Your task to perform on an android device: open app "TextNow: Call + Text Unlimited" (install if not already installed) Image 0: 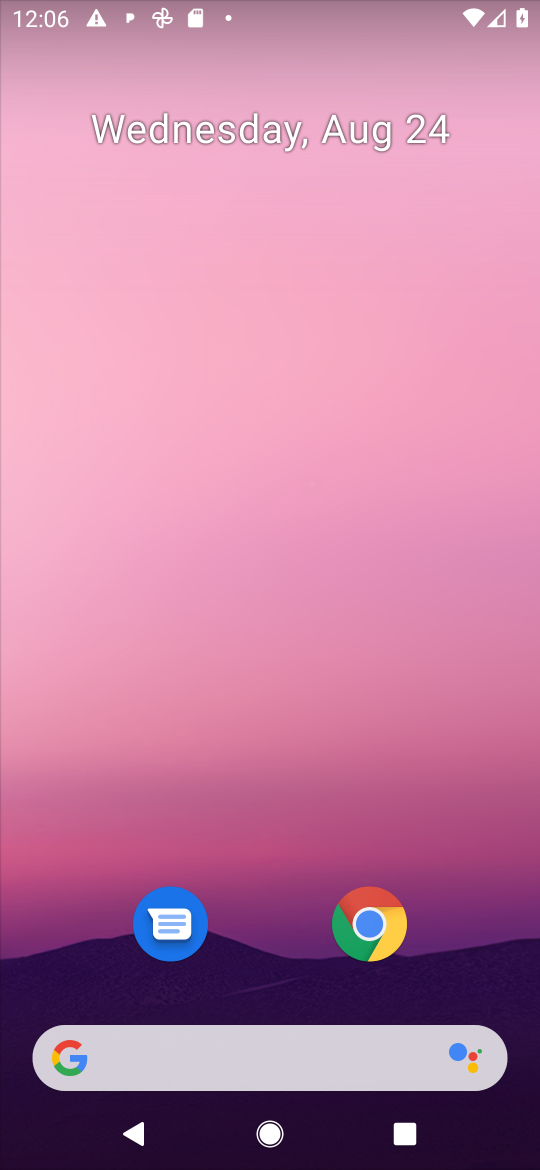
Step 0: press home button
Your task to perform on an android device: open app "TextNow: Call + Text Unlimited" (install if not already installed) Image 1: 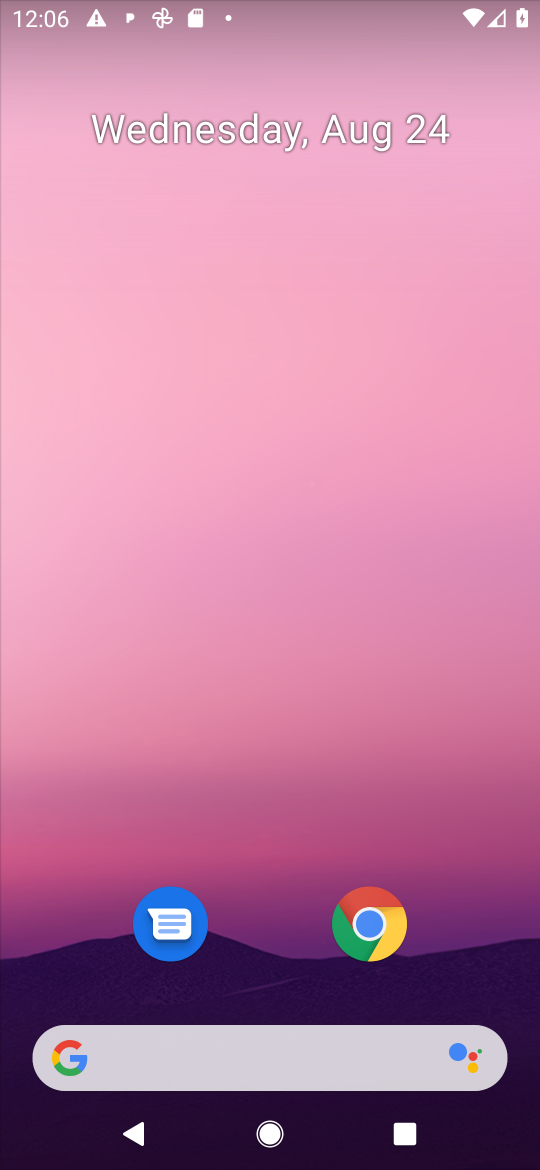
Step 1: drag from (467, 974) to (461, 209)
Your task to perform on an android device: open app "TextNow: Call + Text Unlimited" (install if not already installed) Image 2: 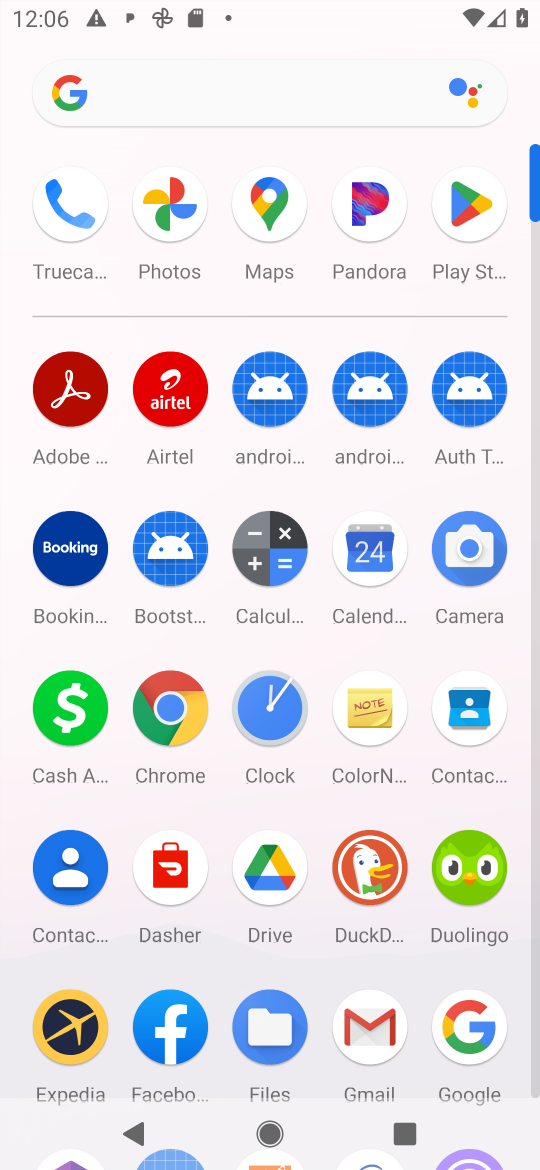
Step 2: click (471, 207)
Your task to perform on an android device: open app "TextNow: Call + Text Unlimited" (install if not already installed) Image 3: 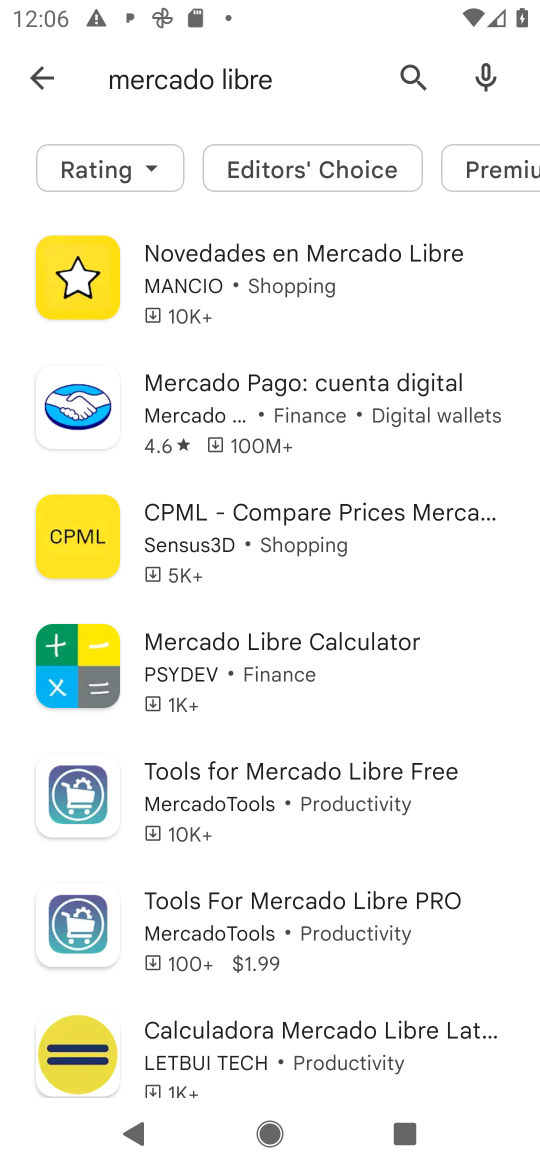
Step 3: press back button
Your task to perform on an android device: open app "TextNow: Call + Text Unlimited" (install if not already installed) Image 4: 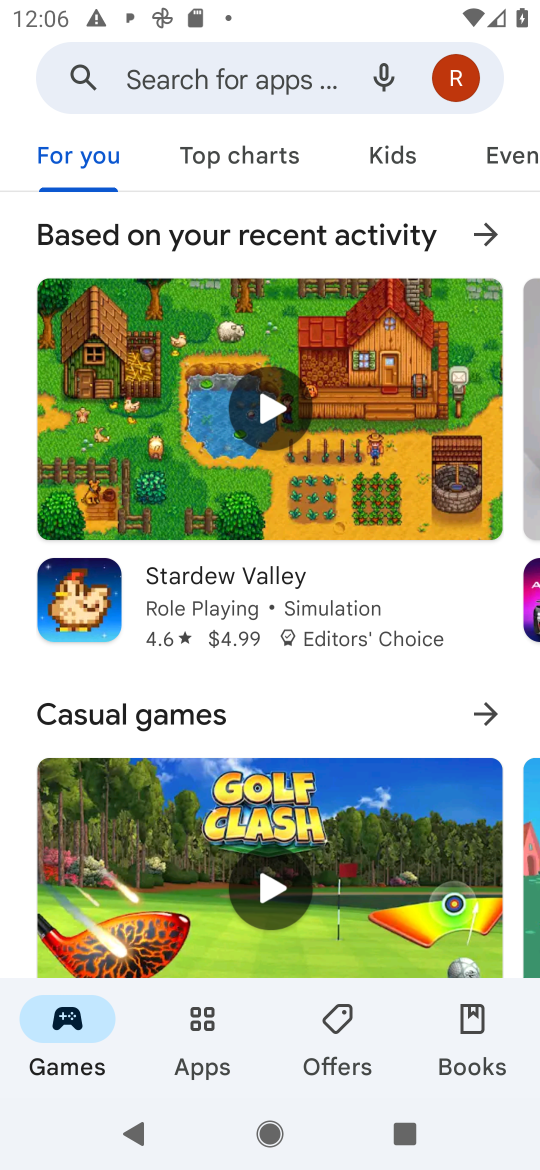
Step 4: click (242, 69)
Your task to perform on an android device: open app "TextNow: Call + Text Unlimited" (install if not already installed) Image 5: 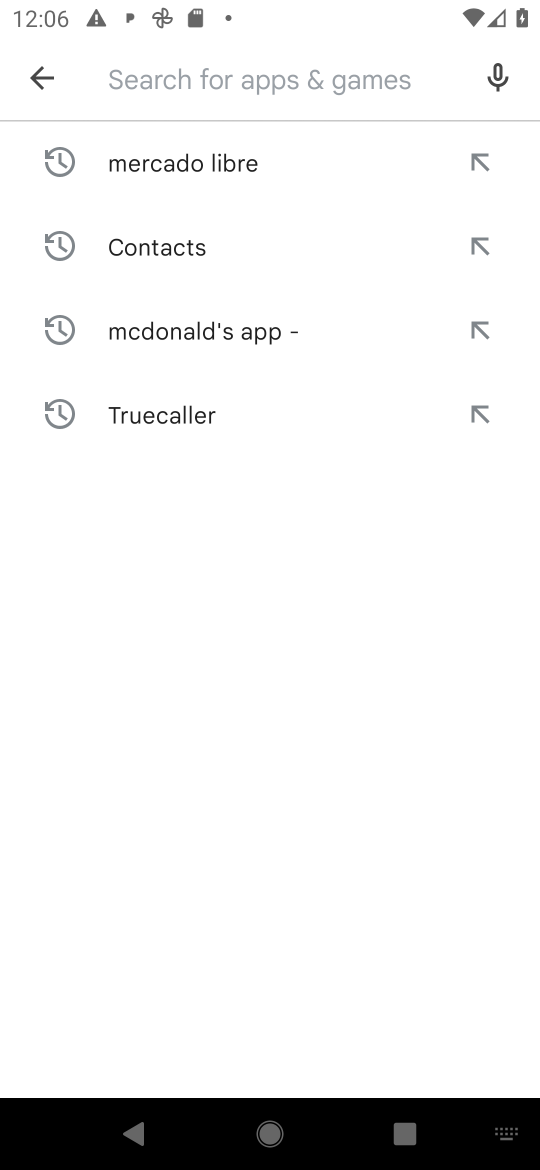
Step 5: type "TextNow: Call + Text Unlimited"
Your task to perform on an android device: open app "TextNow: Call + Text Unlimited" (install if not already installed) Image 6: 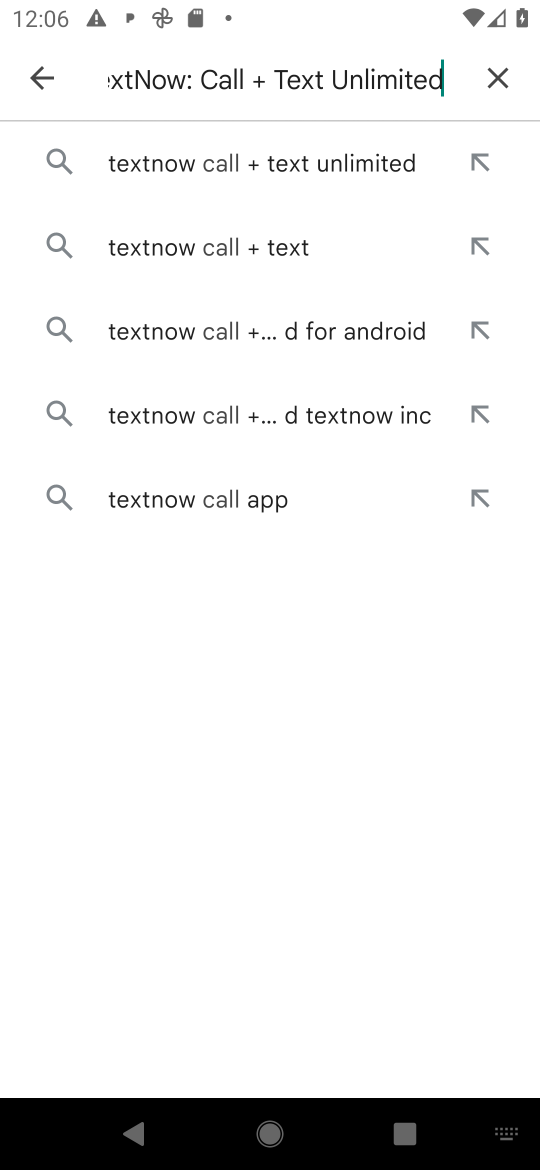
Step 6: press enter
Your task to perform on an android device: open app "TextNow: Call + Text Unlimited" (install if not already installed) Image 7: 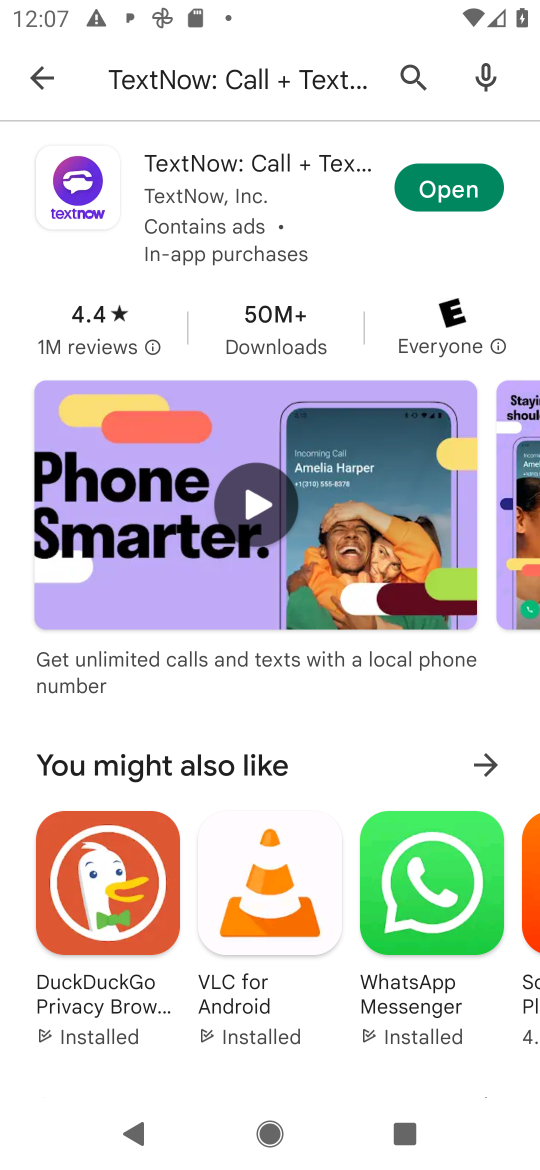
Step 7: click (462, 191)
Your task to perform on an android device: open app "TextNow: Call + Text Unlimited" (install if not already installed) Image 8: 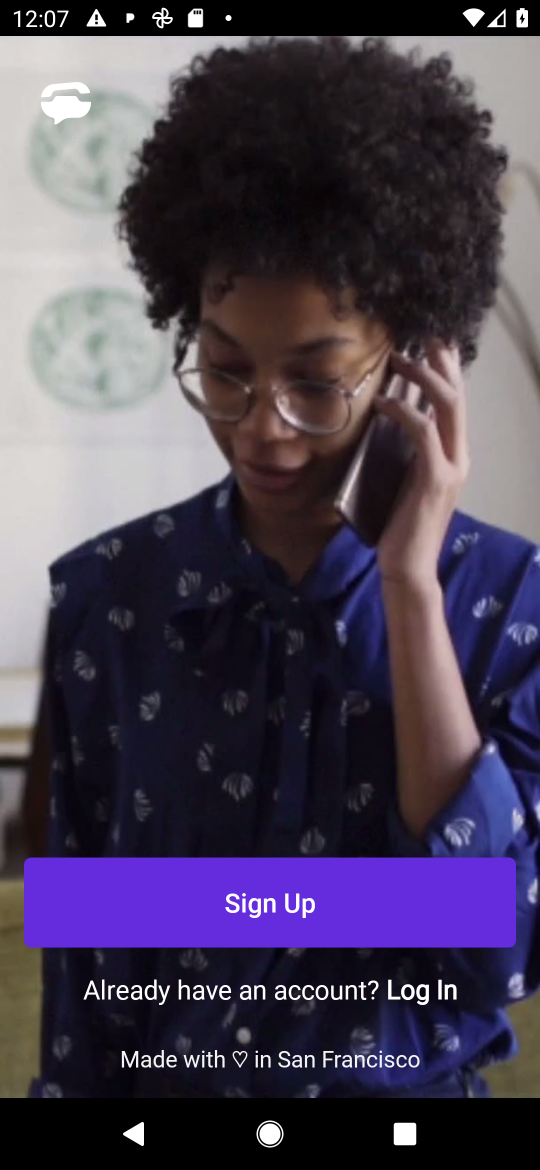
Step 8: task complete